Your task to perform on an android device: Go to battery settings Image 0: 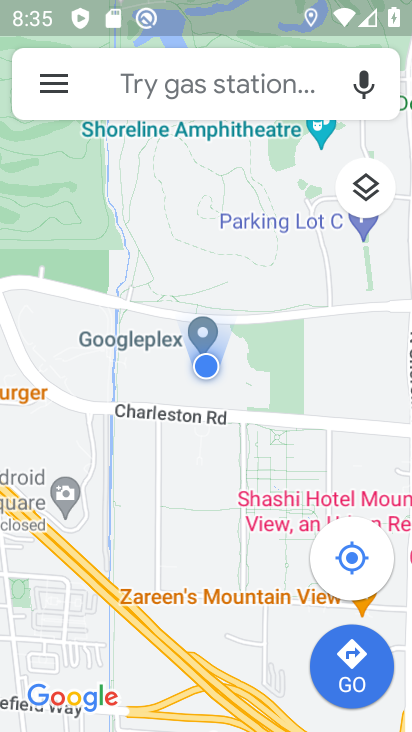
Step 0: press back button
Your task to perform on an android device: Go to battery settings Image 1: 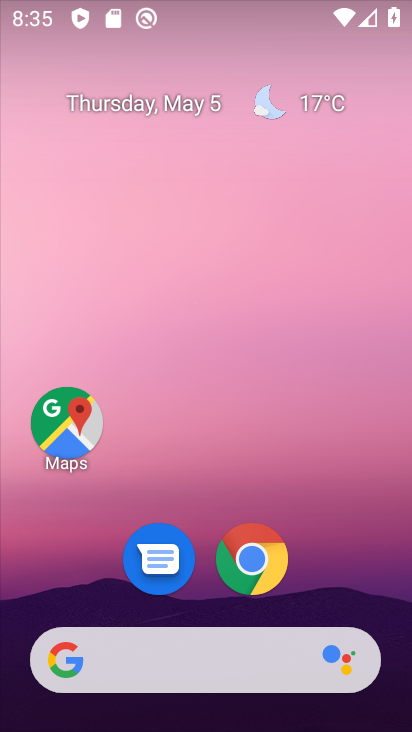
Step 1: drag from (210, 533) to (287, 45)
Your task to perform on an android device: Go to battery settings Image 2: 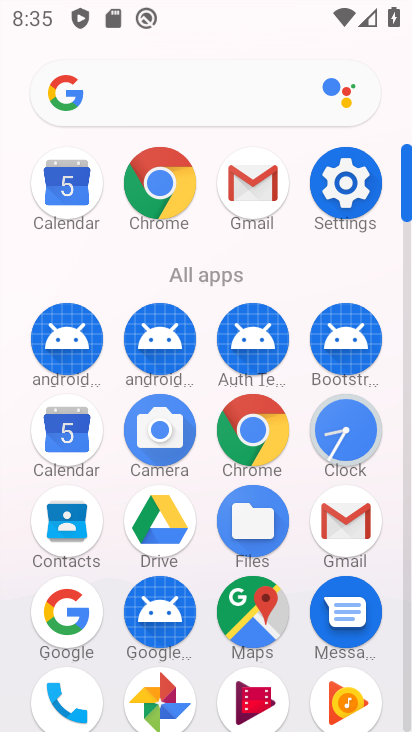
Step 2: click (355, 158)
Your task to perform on an android device: Go to battery settings Image 3: 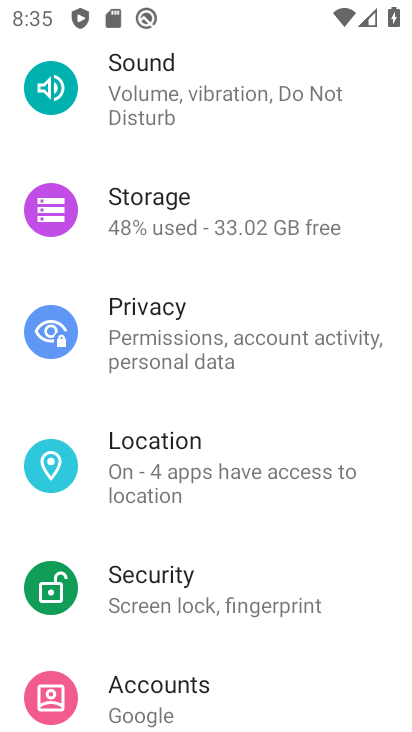
Step 3: drag from (201, 115) to (123, 569)
Your task to perform on an android device: Go to battery settings Image 4: 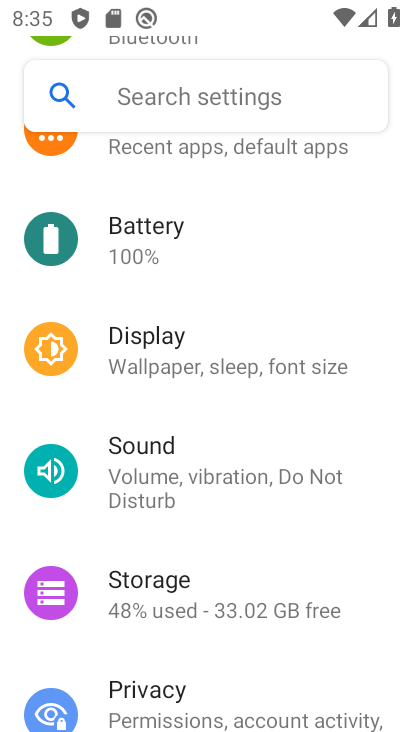
Step 4: click (163, 225)
Your task to perform on an android device: Go to battery settings Image 5: 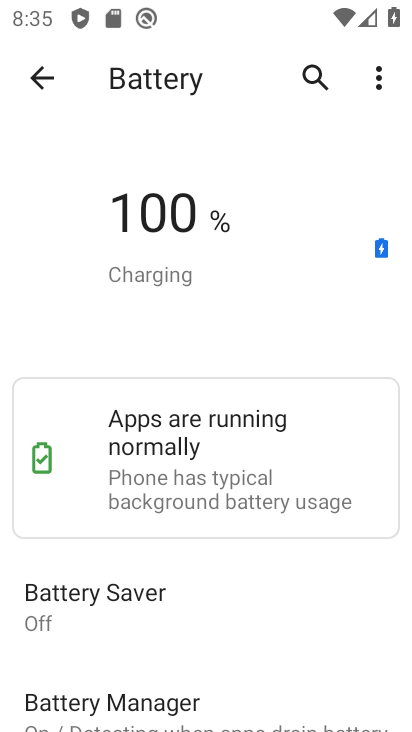
Step 5: task complete